Your task to perform on an android device: Open Wikipedia Image 0: 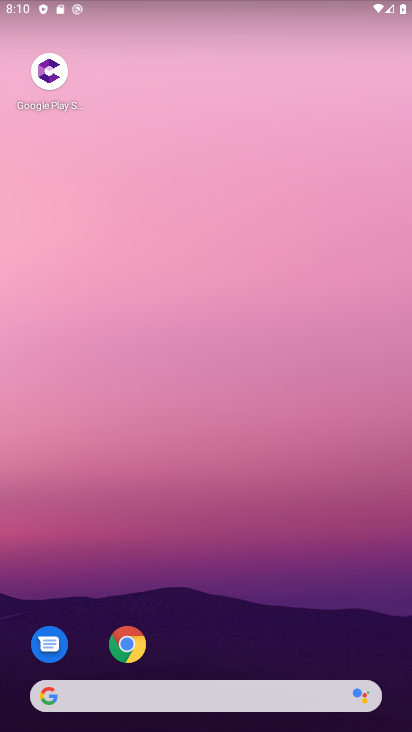
Step 0: click (121, 652)
Your task to perform on an android device: Open Wikipedia Image 1: 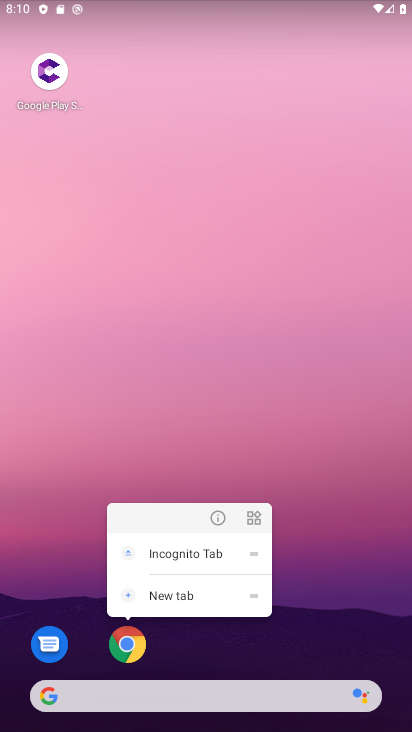
Step 1: click (134, 648)
Your task to perform on an android device: Open Wikipedia Image 2: 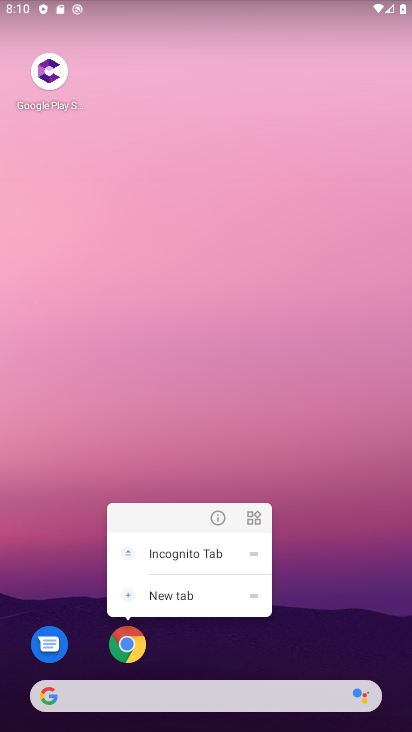
Step 2: click (134, 648)
Your task to perform on an android device: Open Wikipedia Image 3: 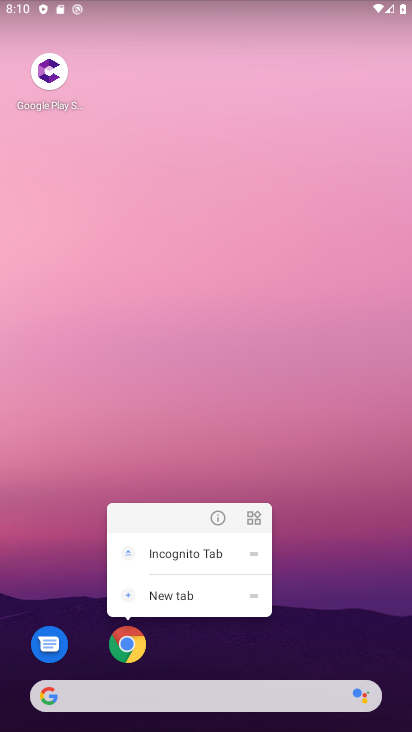
Step 3: click (124, 651)
Your task to perform on an android device: Open Wikipedia Image 4: 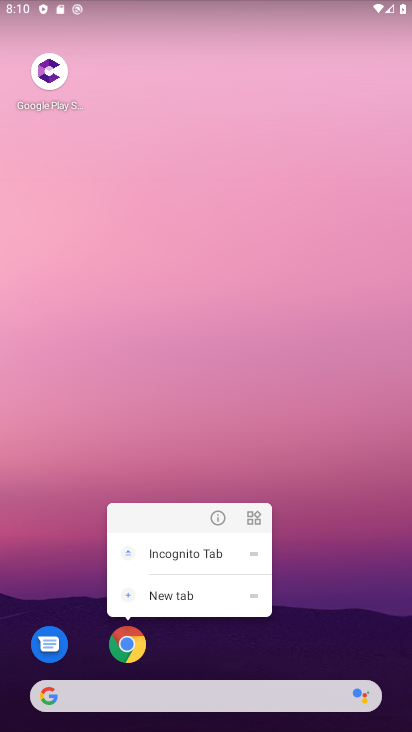
Step 4: click (131, 649)
Your task to perform on an android device: Open Wikipedia Image 5: 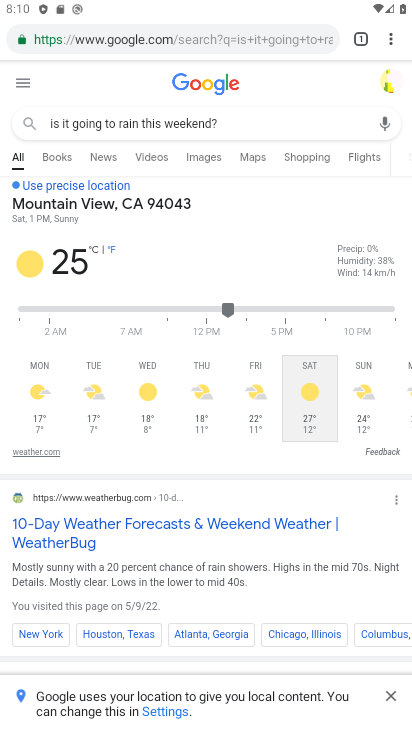
Step 5: click (249, 33)
Your task to perform on an android device: Open Wikipedia Image 6: 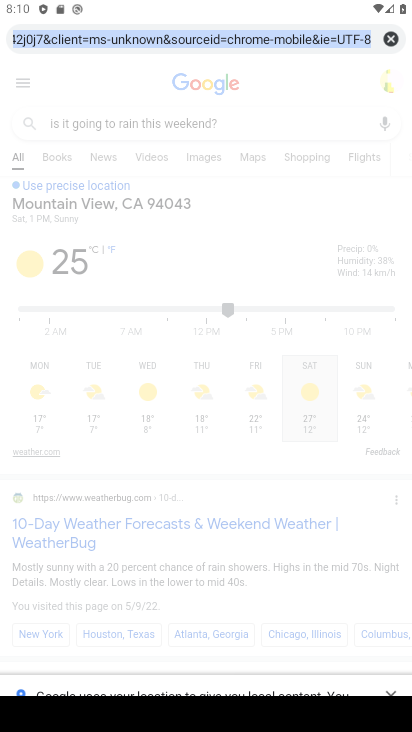
Step 6: type "wikipedia"
Your task to perform on an android device: Open Wikipedia Image 7: 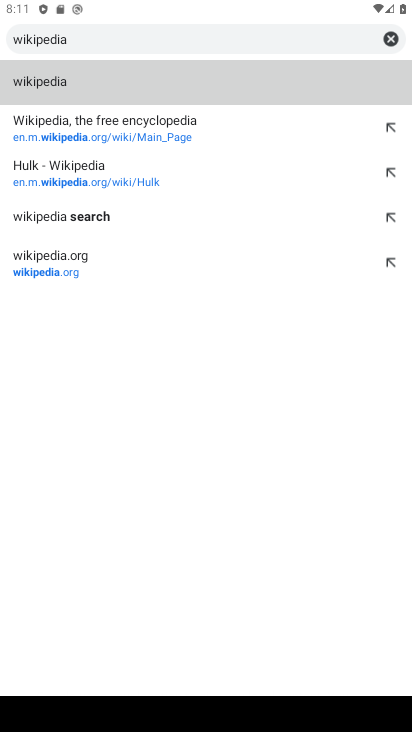
Step 7: click (47, 82)
Your task to perform on an android device: Open Wikipedia Image 8: 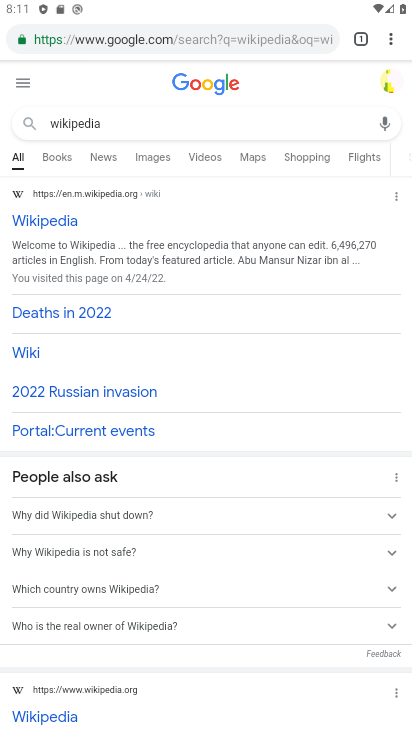
Step 8: click (76, 222)
Your task to perform on an android device: Open Wikipedia Image 9: 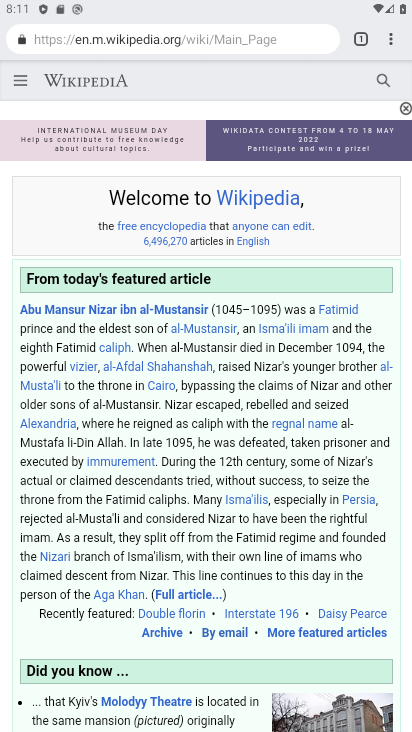
Step 9: task complete